Your task to perform on an android device: What's the weather going to be this weekend? Image 0: 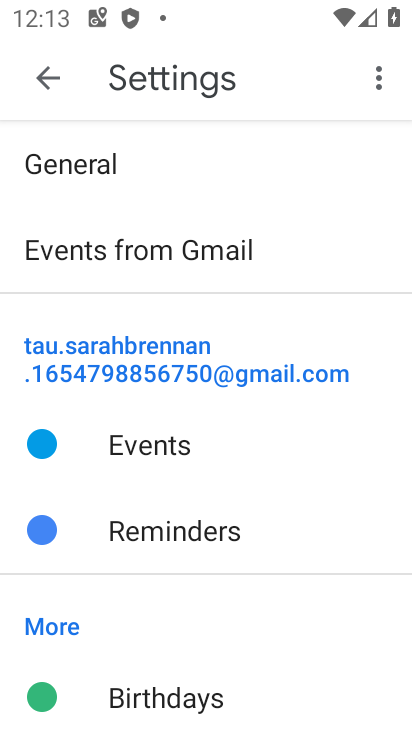
Step 0: press back button
Your task to perform on an android device: What's the weather going to be this weekend? Image 1: 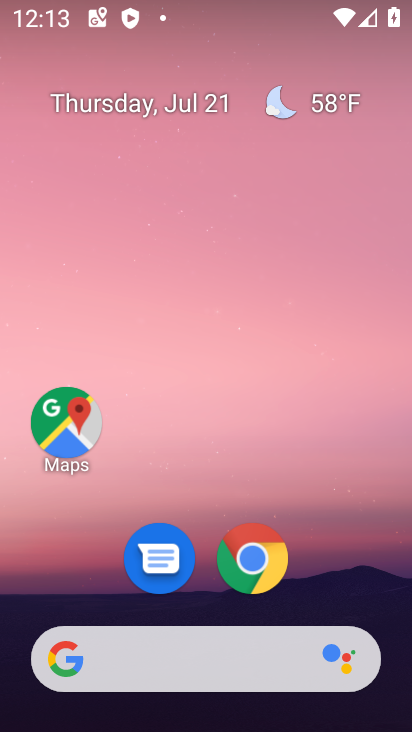
Step 1: click (172, 655)
Your task to perform on an android device: What's the weather going to be this weekend? Image 2: 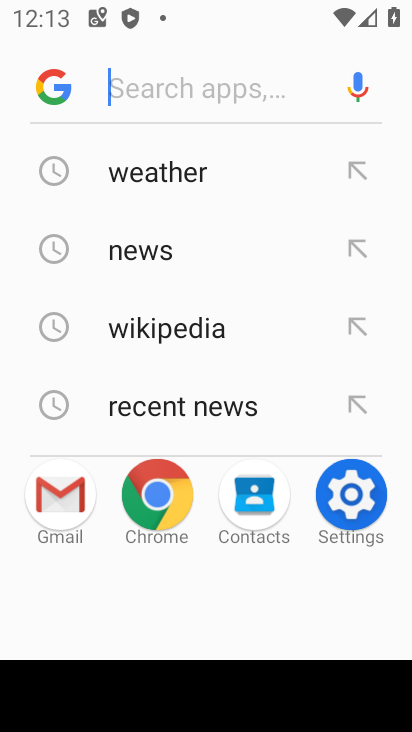
Step 2: click (147, 170)
Your task to perform on an android device: What's the weather going to be this weekend? Image 3: 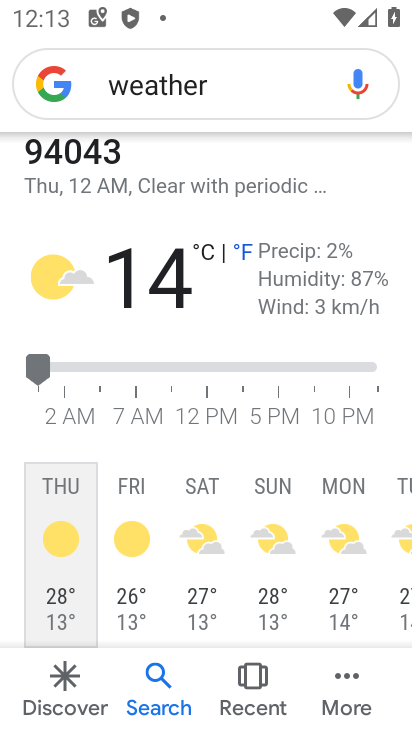
Step 3: task complete